Your task to perform on an android device: turn on notifications settings in the gmail app Image 0: 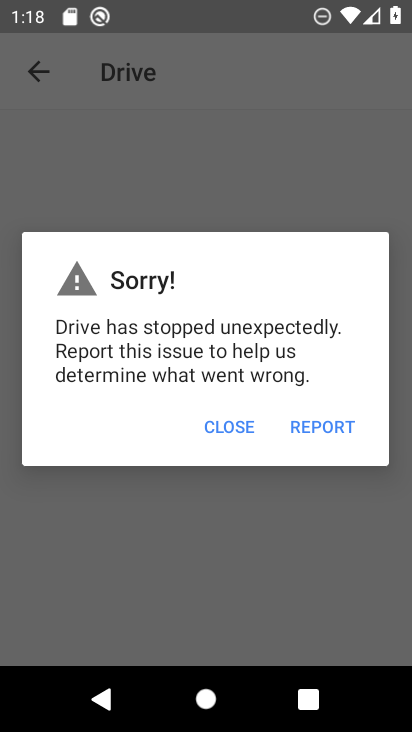
Step 0: press home button
Your task to perform on an android device: turn on notifications settings in the gmail app Image 1: 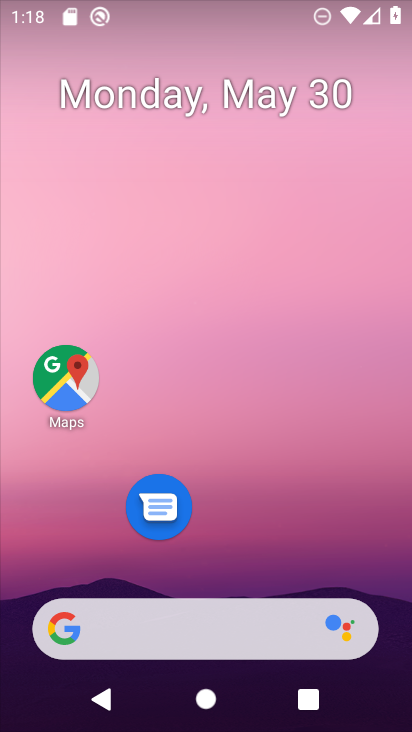
Step 1: drag from (352, 515) to (325, 13)
Your task to perform on an android device: turn on notifications settings in the gmail app Image 2: 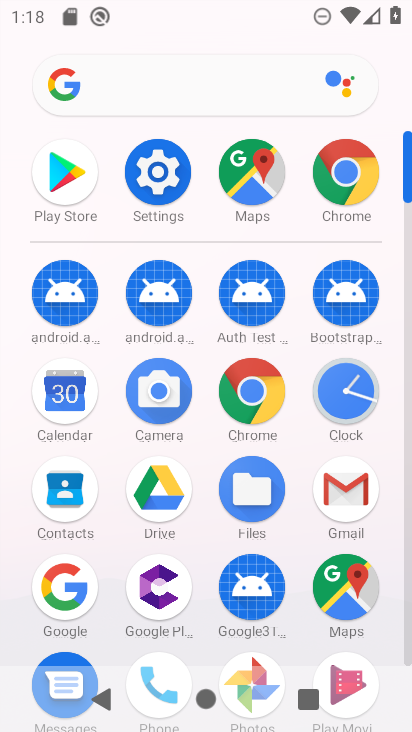
Step 2: click (357, 499)
Your task to perform on an android device: turn on notifications settings in the gmail app Image 3: 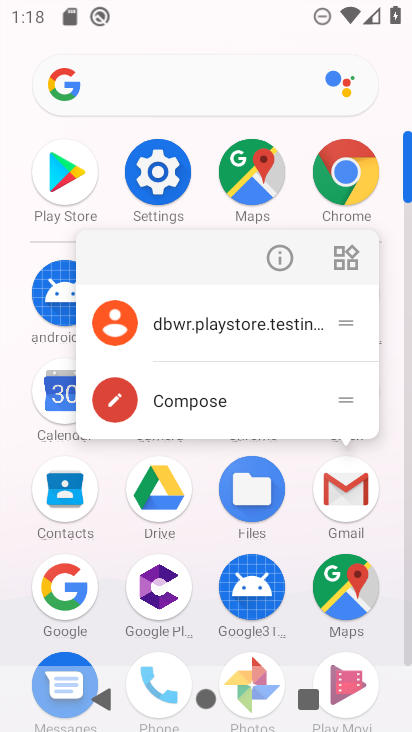
Step 3: click (273, 242)
Your task to perform on an android device: turn on notifications settings in the gmail app Image 4: 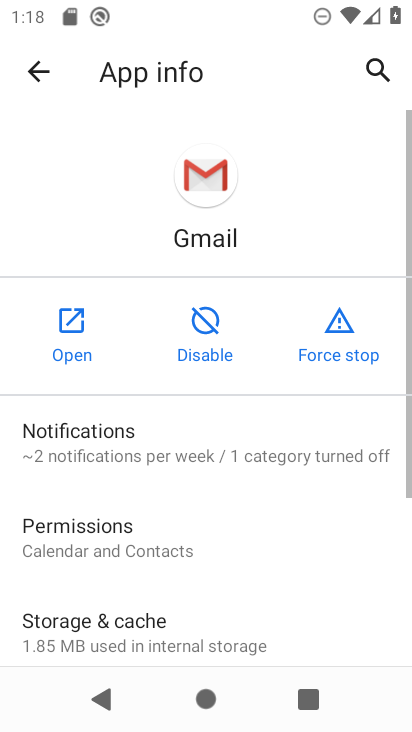
Step 4: click (58, 439)
Your task to perform on an android device: turn on notifications settings in the gmail app Image 5: 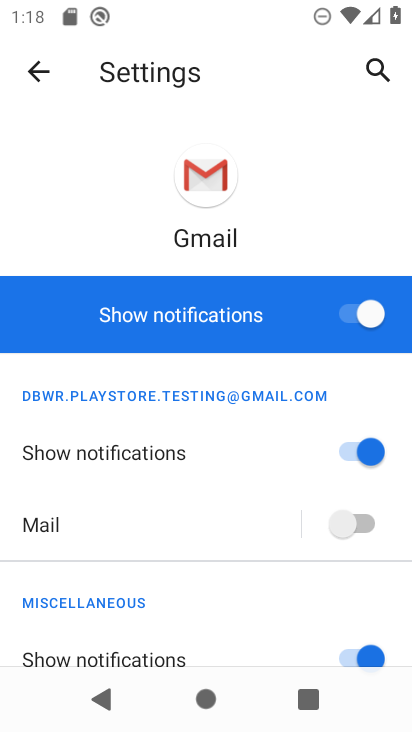
Step 5: task complete